Your task to perform on an android device: turn on showing notifications on the lock screen Image 0: 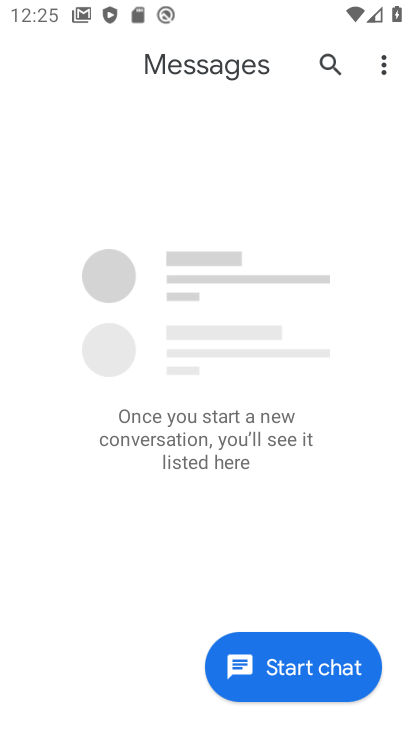
Step 0: press back button
Your task to perform on an android device: turn on showing notifications on the lock screen Image 1: 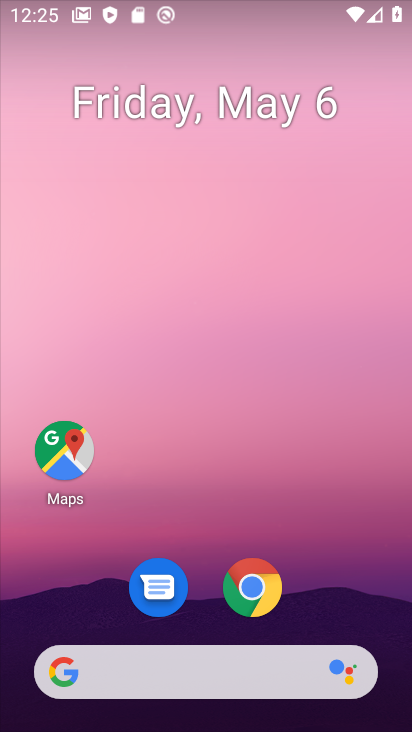
Step 1: drag from (148, 636) to (227, 134)
Your task to perform on an android device: turn on showing notifications on the lock screen Image 2: 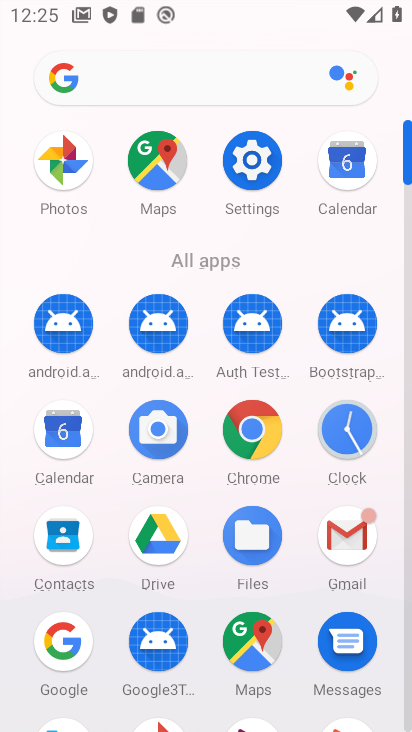
Step 2: drag from (185, 618) to (247, 344)
Your task to perform on an android device: turn on showing notifications on the lock screen Image 3: 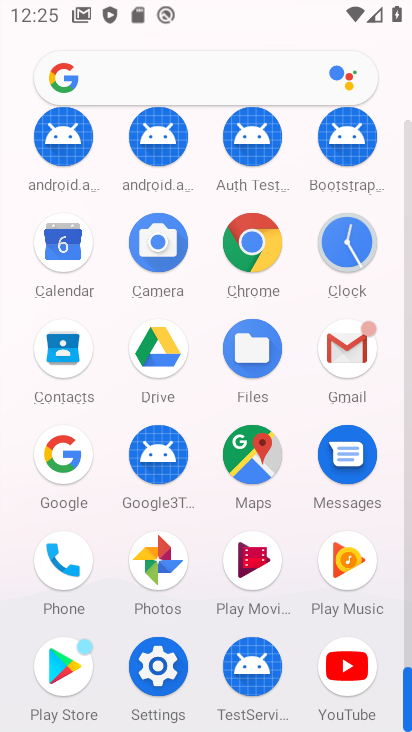
Step 3: click (165, 670)
Your task to perform on an android device: turn on showing notifications on the lock screen Image 4: 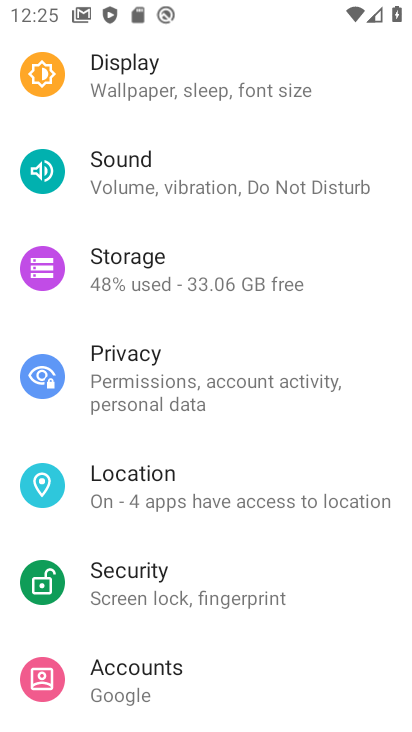
Step 4: drag from (221, 267) to (221, 447)
Your task to perform on an android device: turn on showing notifications on the lock screen Image 5: 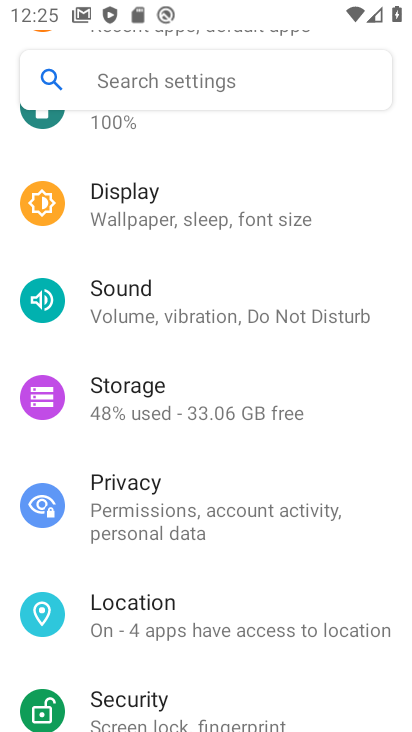
Step 5: drag from (174, 205) to (172, 480)
Your task to perform on an android device: turn on showing notifications on the lock screen Image 6: 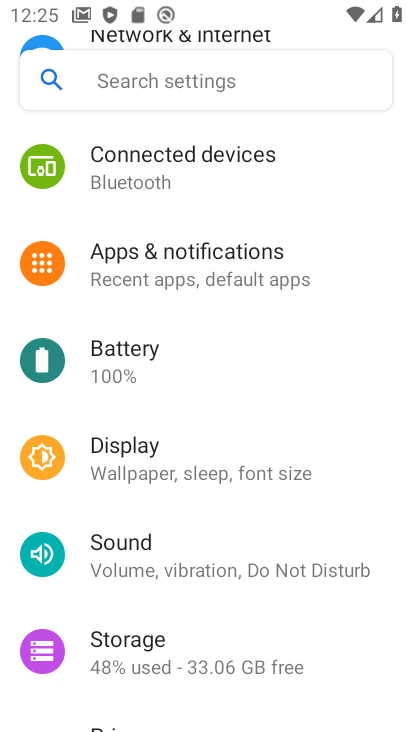
Step 6: click (227, 272)
Your task to perform on an android device: turn on showing notifications on the lock screen Image 7: 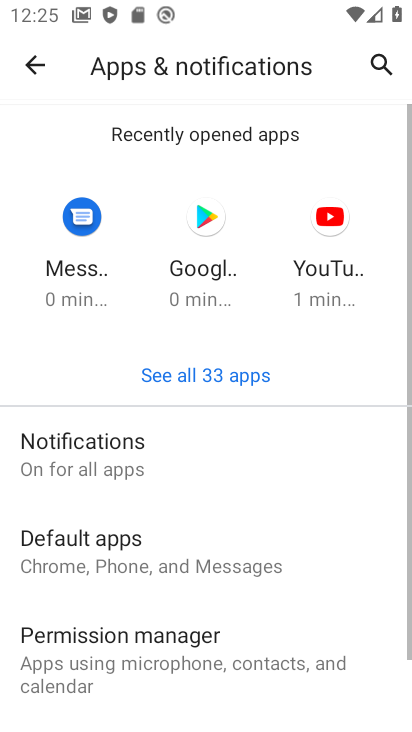
Step 7: drag from (254, 684) to (313, 423)
Your task to perform on an android device: turn on showing notifications on the lock screen Image 8: 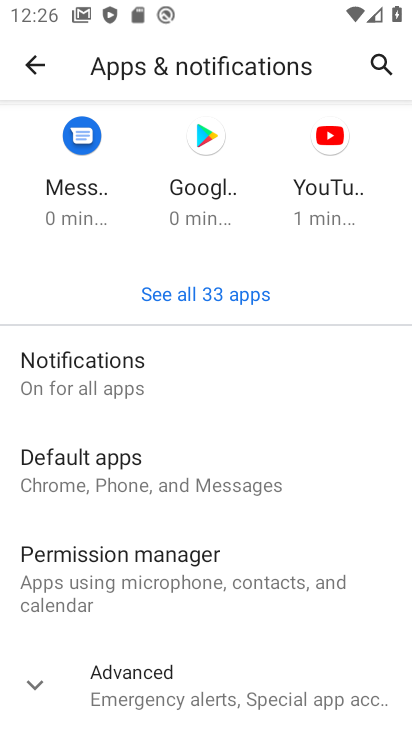
Step 8: click (154, 387)
Your task to perform on an android device: turn on showing notifications on the lock screen Image 9: 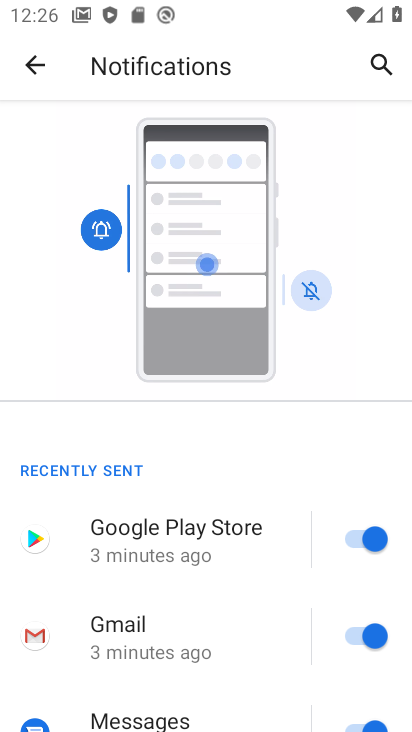
Step 9: drag from (169, 637) to (259, 238)
Your task to perform on an android device: turn on showing notifications on the lock screen Image 10: 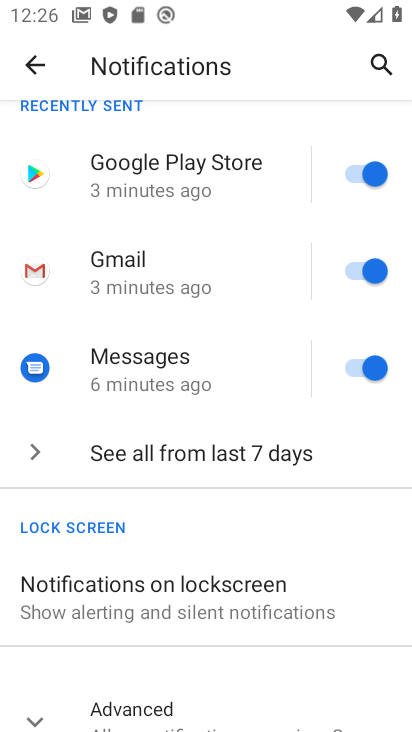
Step 10: drag from (153, 676) to (225, 397)
Your task to perform on an android device: turn on showing notifications on the lock screen Image 11: 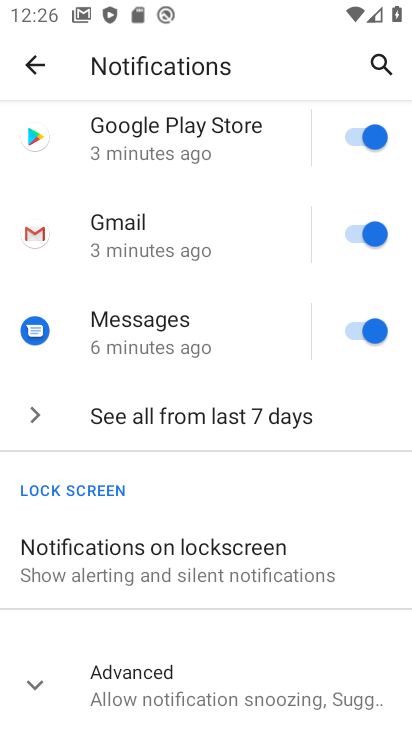
Step 11: click (233, 579)
Your task to perform on an android device: turn on showing notifications on the lock screen Image 12: 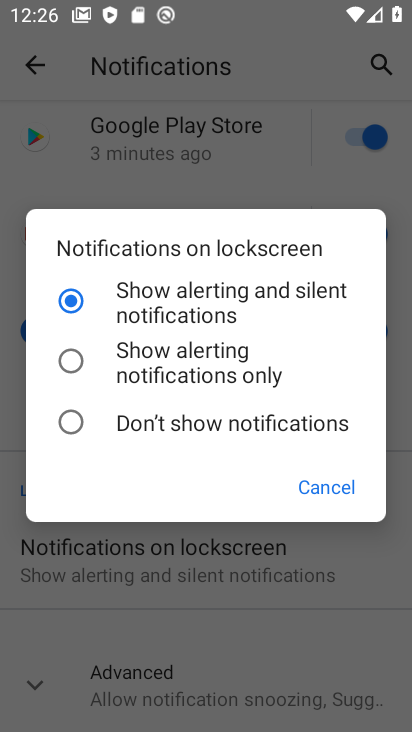
Step 12: task complete